Your task to perform on an android device: Clear all items from cart on costco.com. Image 0: 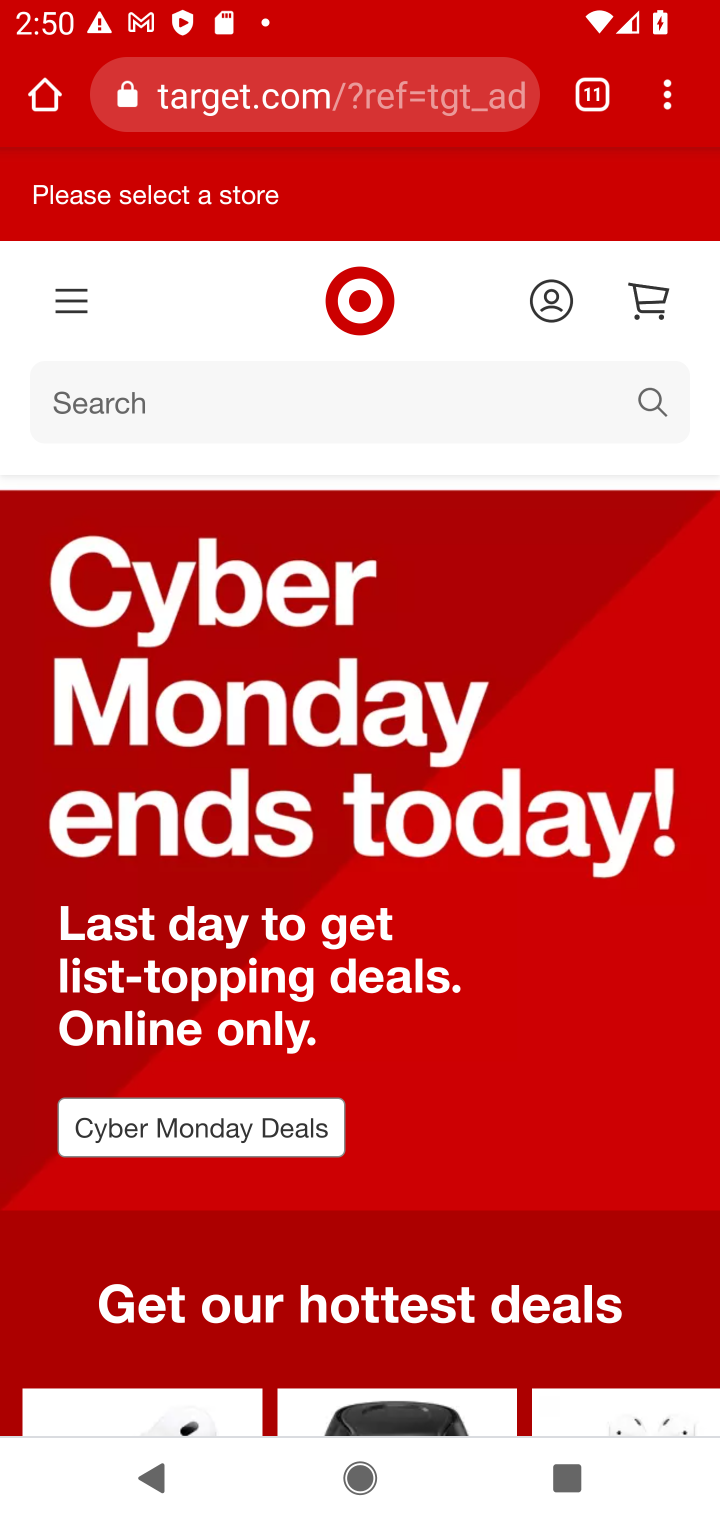
Step 0: press home button
Your task to perform on an android device: Clear all items from cart on costco.com. Image 1: 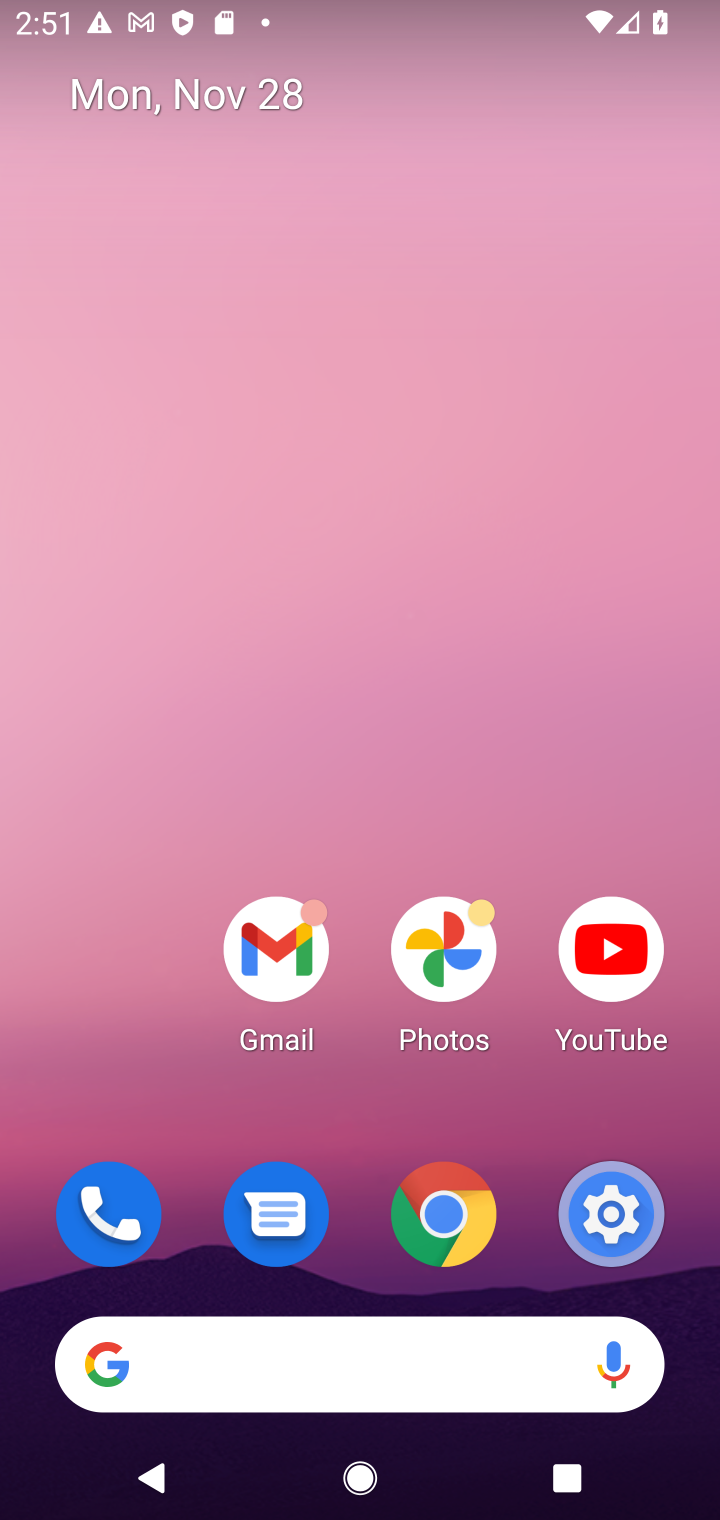
Step 1: click (361, 1358)
Your task to perform on an android device: Clear all items from cart on costco.com. Image 2: 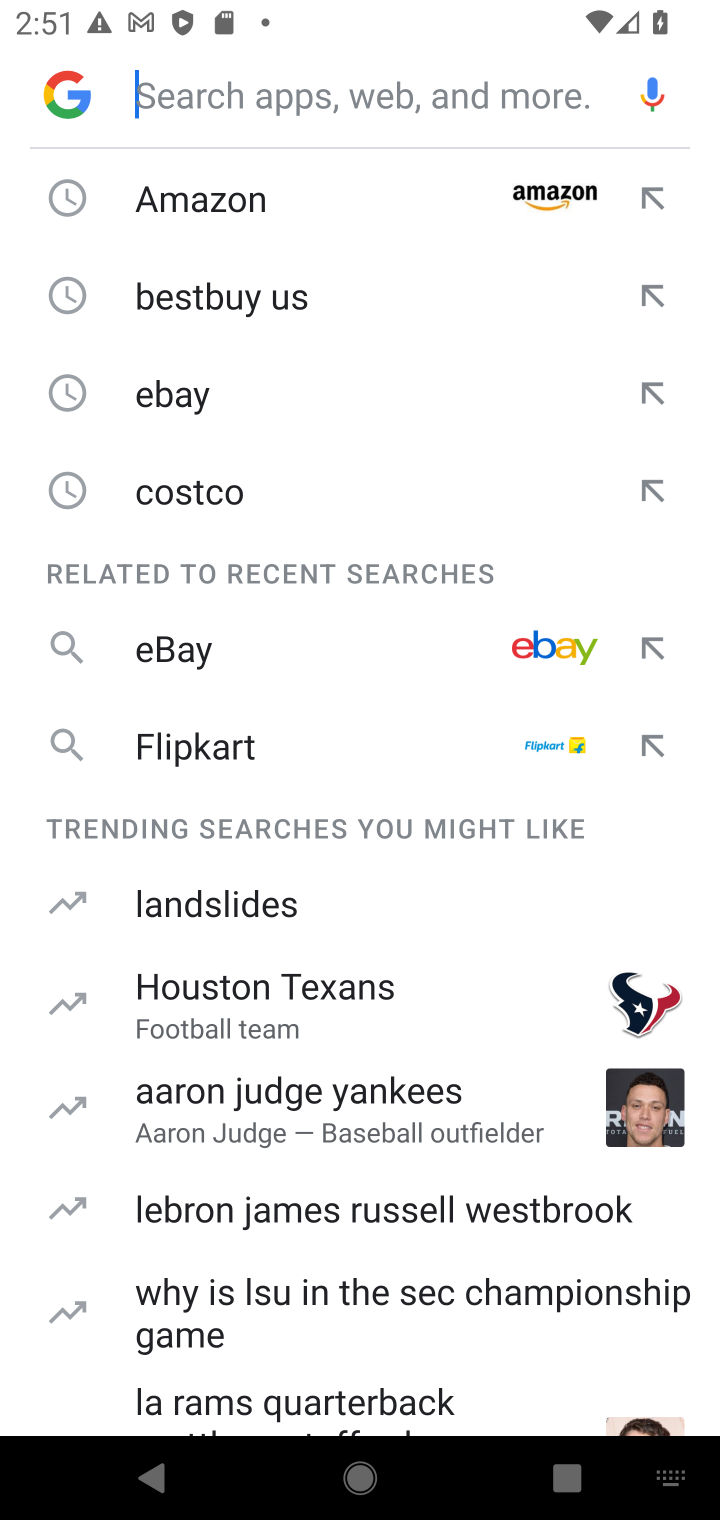
Step 2: type "costco.com"
Your task to perform on an android device: Clear all items from cart on costco.com. Image 3: 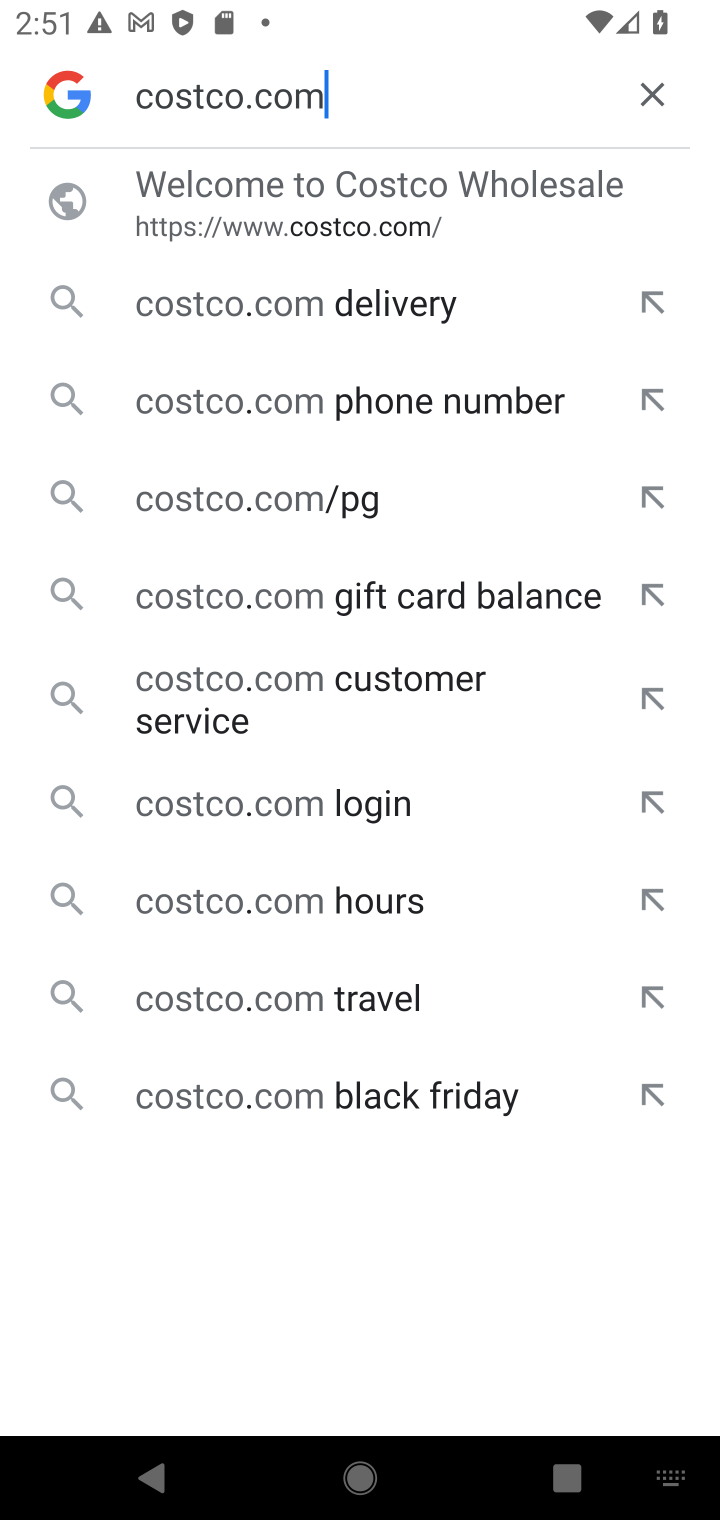
Step 3: click (211, 240)
Your task to perform on an android device: Clear all items from cart on costco.com. Image 4: 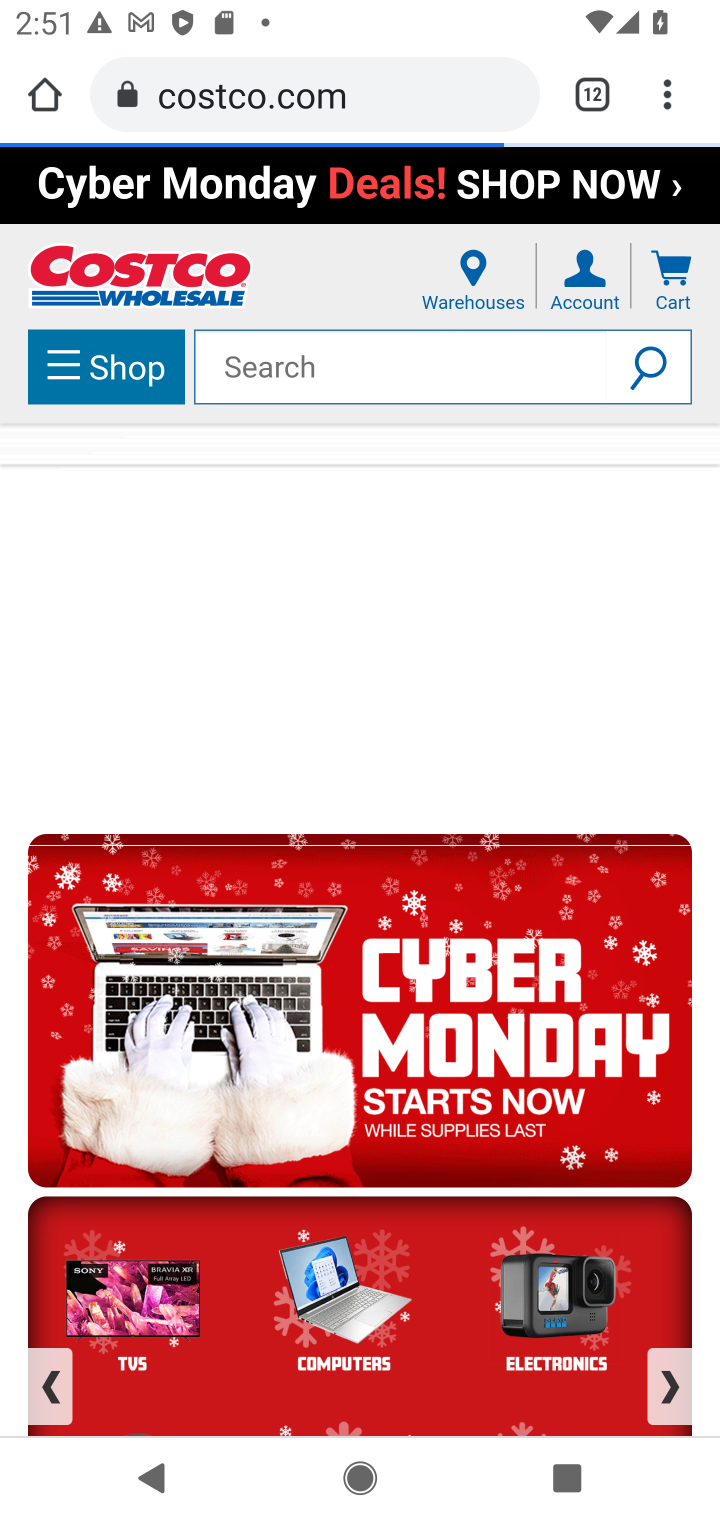
Step 4: click (266, 363)
Your task to perform on an android device: Clear all items from cart on costco.com. Image 5: 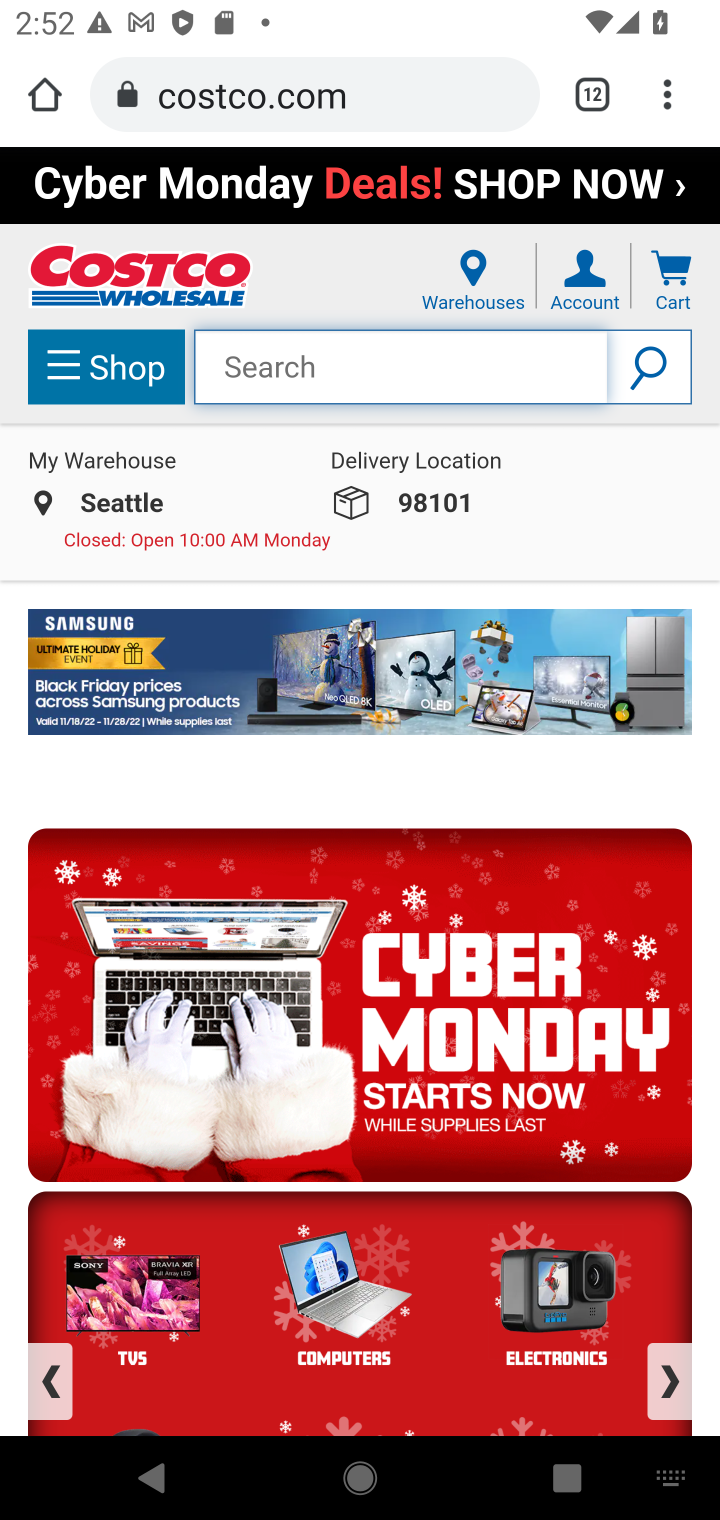
Step 5: task complete